Your task to perform on an android device: turn on wifi Image 0: 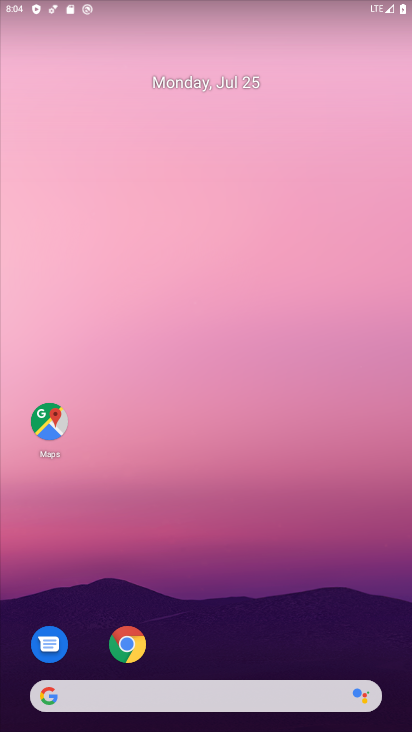
Step 0: drag from (215, 332) to (232, 143)
Your task to perform on an android device: turn on wifi Image 1: 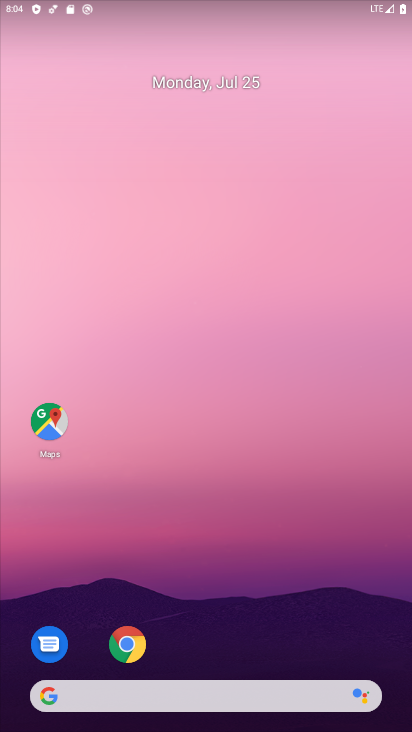
Step 1: drag from (180, 522) to (189, 154)
Your task to perform on an android device: turn on wifi Image 2: 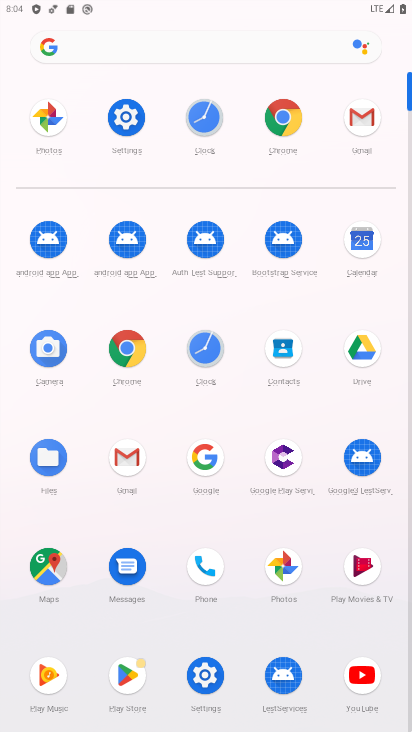
Step 2: click (125, 128)
Your task to perform on an android device: turn on wifi Image 3: 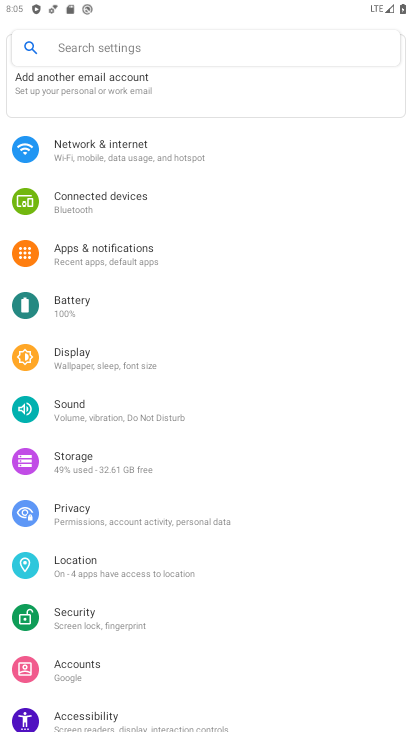
Step 3: click (118, 134)
Your task to perform on an android device: turn on wifi Image 4: 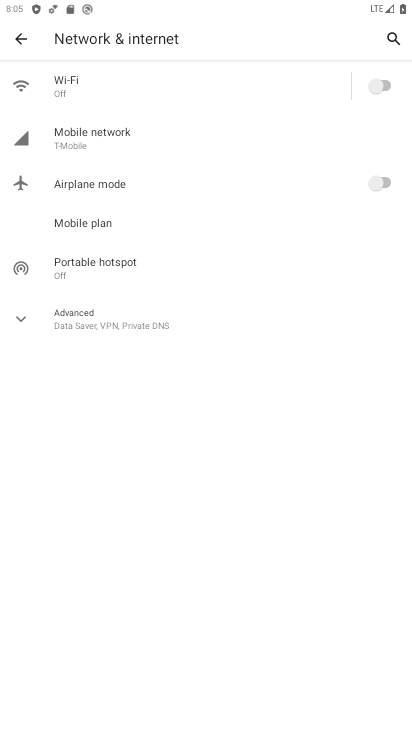
Step 4: click (164, 95)
Your task to perform on an android device: turn on wifi Image 5: 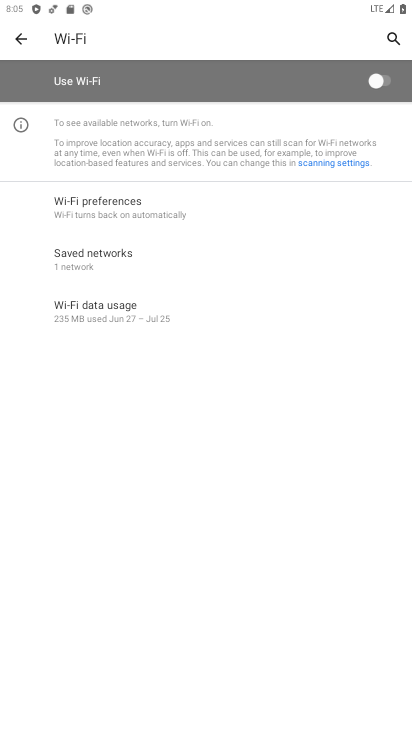
Step 5: click (382, 68)
Your task to perform on an android device: turn on wifi Image 6: 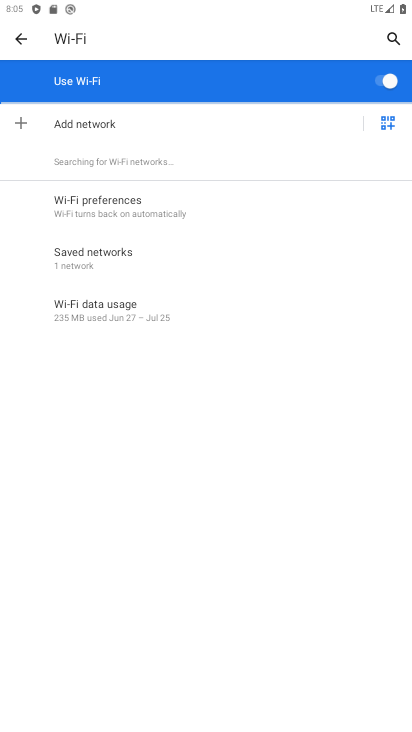
Step 6: task complete